Your task to perform on an android device: change the clock style Image 0: 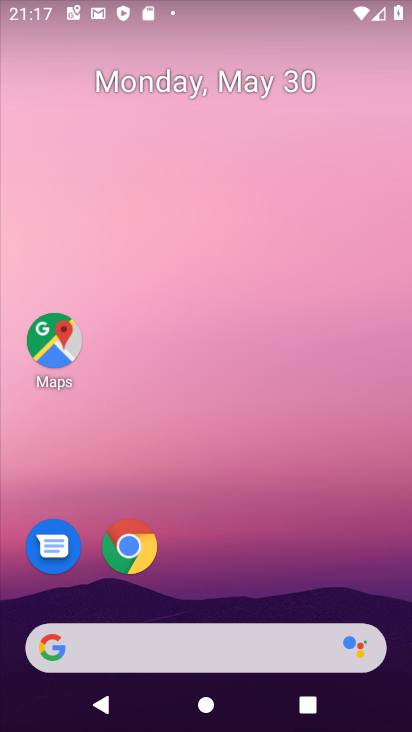
Step 0: drag from (222, 556) to (211, 132)
Your task to perform on an android device: change the clock style Image 1: 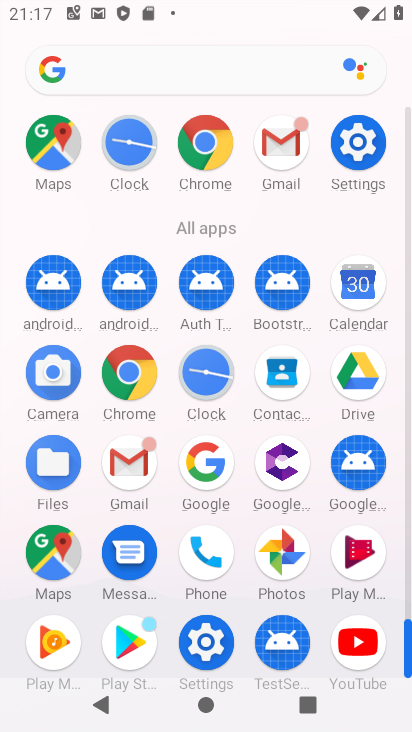
Step 1: click (195, 381)
Your task to perform on an android device: change the clock style Image 2: 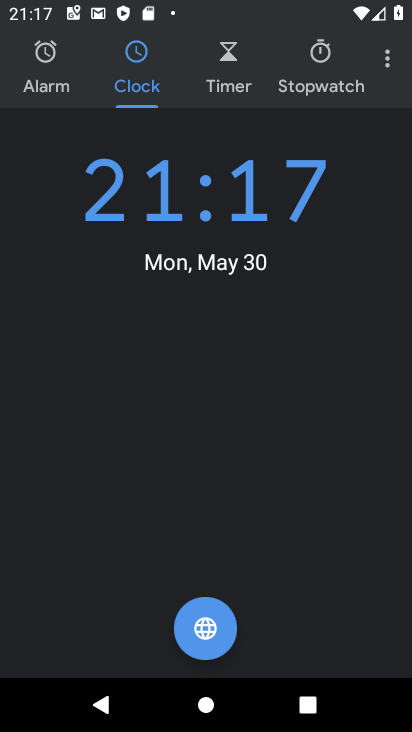
Step 2: click (384, 54)
Your task to perform on an android device: change the clock style Image 3: 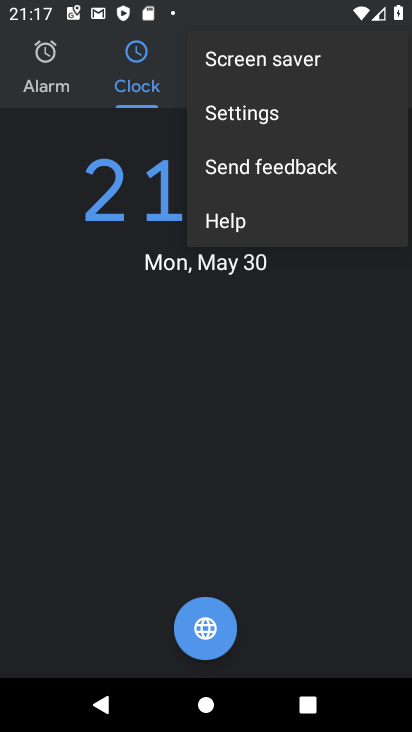
Step 3: click (270, 108)
Your task to perform on an android device: change the clock style Image 4: 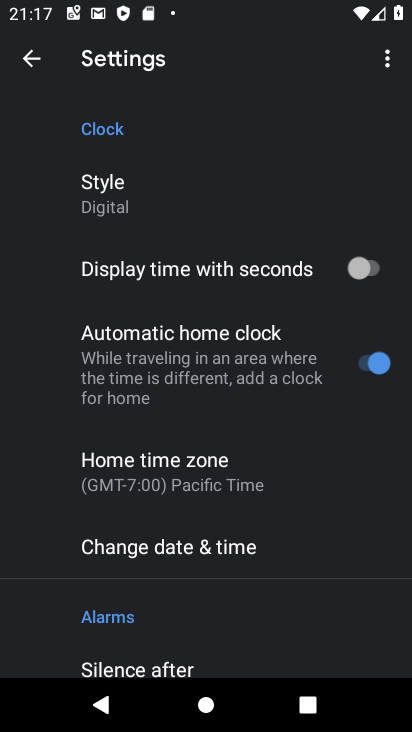
Step 4: click (191, 197)
Your task to perform on an android device: change the clock style Image 5: 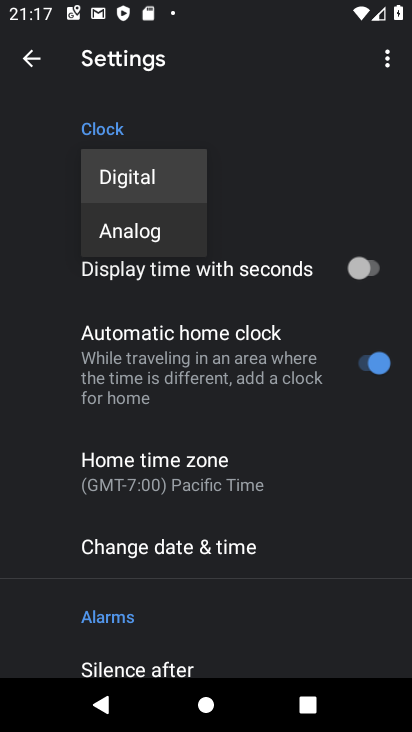
Step 5: click (163, 229)
Your task to perform on an android device: change the clock style Image 6: 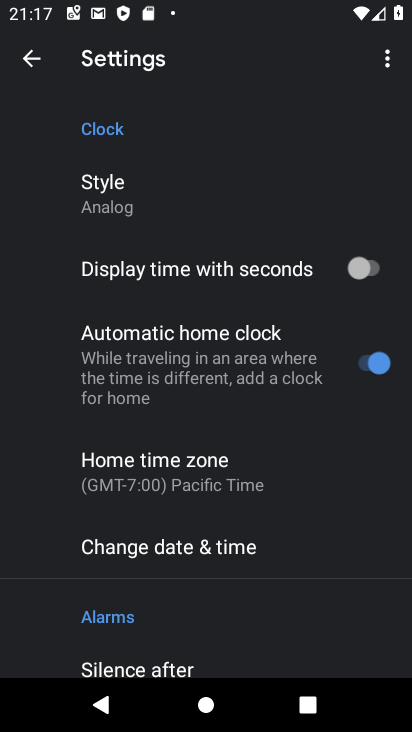
Step 6: task complete